Your task to perform on an android device: Open Google Maps and go to "Timeline" Image 0: 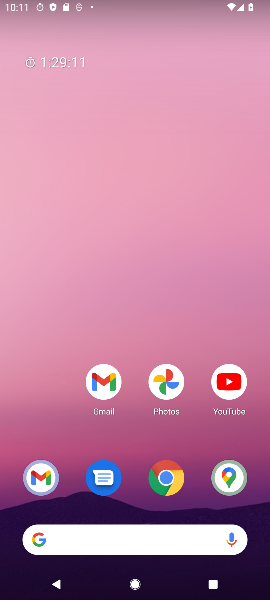
Step 0: drag from (157, 437) to (230, 67)
Your task to perform on an android device: Open Google Maps and go to "Timeline" Image 1: 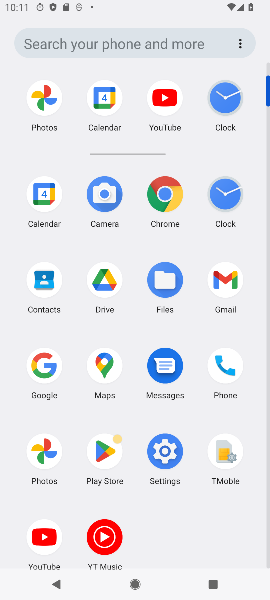
Step 1: click (95, 356)
Your task to perform on an android device: Open Google Maps and go to "Timeline" Image 2: 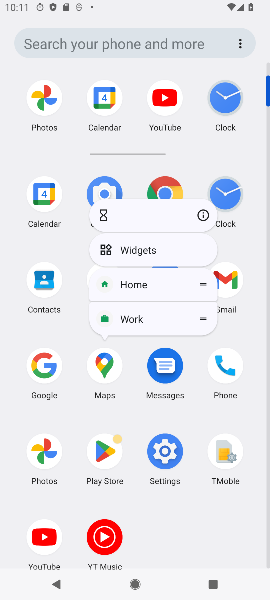
Step 2: click (108, 365)
Your task to perform on an android device: Open Google Maps and go to "Timeline" Image 3: 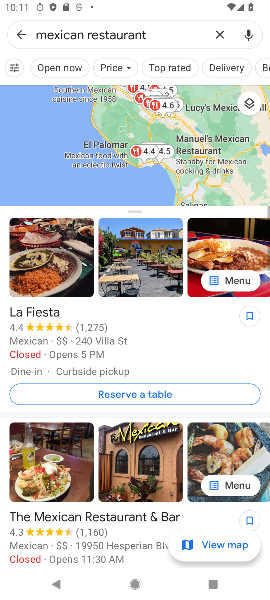
Step 3: click (219, 34)
Your task to perform on an android device: Open Google Maps and go to "Timeline" Image 4: 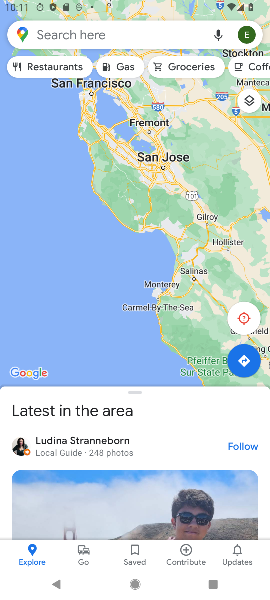
Step 4: click (194, 557)
Your task to perform on an android device: Open Google Maps and go to "Timeline" Image 5: 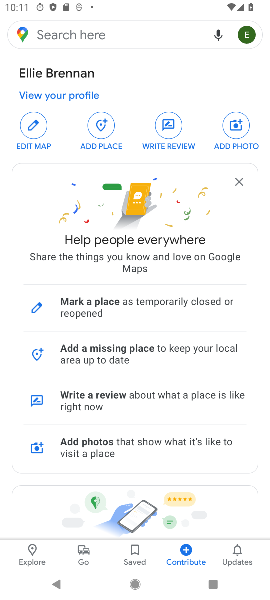
Step 5: drag from (145, 352) to (173, 207)
Your task to perform on an android device: Open Google Maps and go to "Timeline" Image 6: 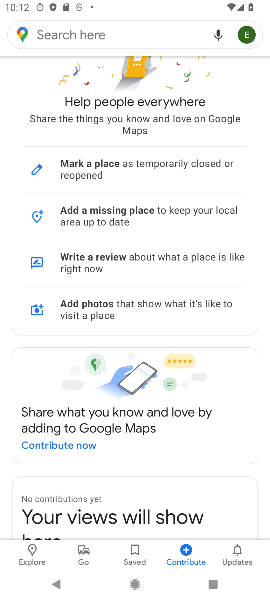
Step 6: drag from (143, 447) to (177, 191)
Your task to perform on an android device: Open Google Maps and go to "Timeline" Image 7: 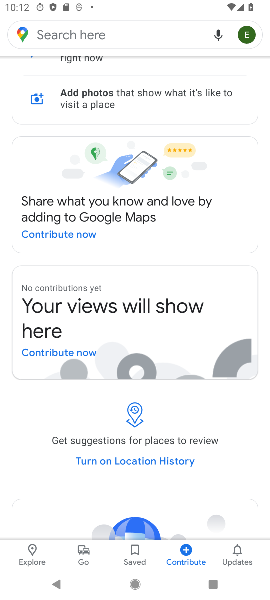
Step 7: click (229, 558)
Your task to perform on an android device: Open Google Maps and go to "Timeline" Image 8: 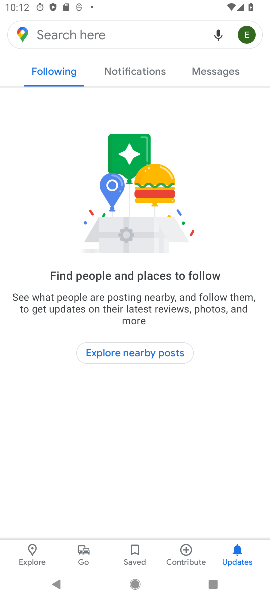
Step 8: click (211, 71)
Your task to perform on an android device: Open Google Maps and go to "Timeline" Image 9: 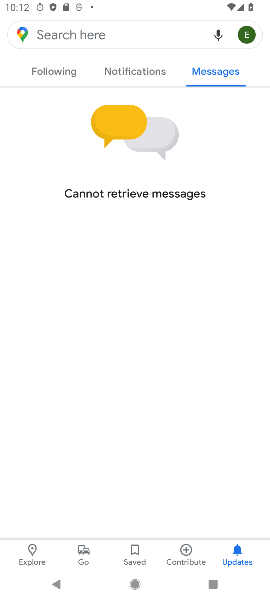
Step 9: click (130, 69)
Your task to perform on an android device: Open Google Maps and go to "Timeline" Image 10: 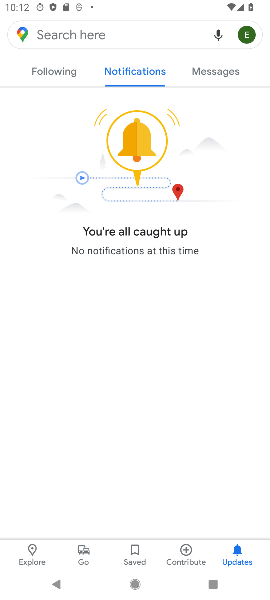
Step 10: click (240, 32)
Your task to perform on an android device: Open Google Maps and go to "Timeline" Image 11: 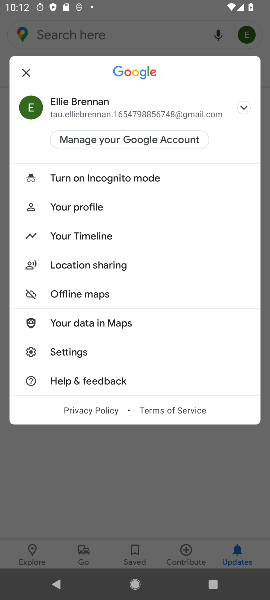
Step 11: click (88, 233)
Your task to perform on an android device: Open Google Maps and go to "Timeline" Image 12: 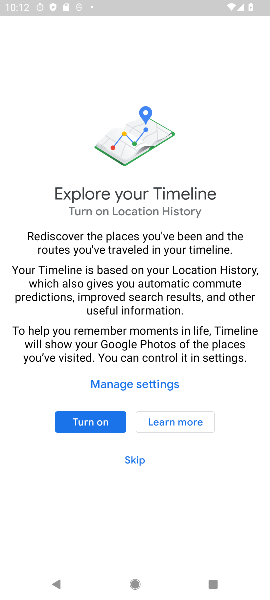
Step 12: click (90, 424)
Your task to perform on an android device: Open Google Maps and go to "Timeline" Image 13: 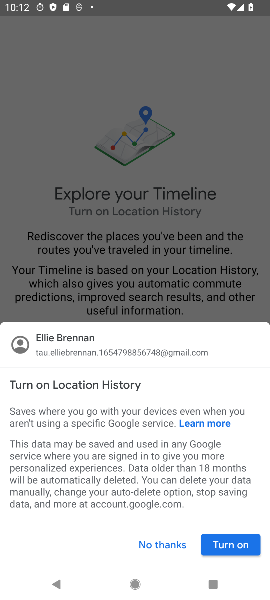
Step 13: click (216, 549)
Your task to perform on an android device: Open Google Maps and go to "Timeline" Image 14: 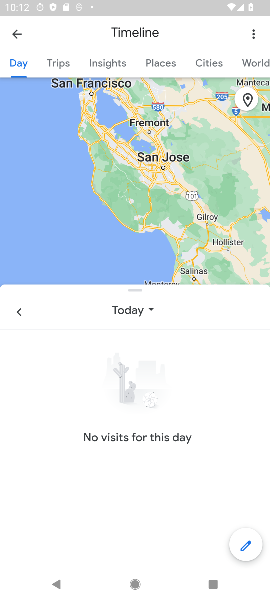
Step 14: task complete